Your task to perform on an android device: manage bookmarks in the chrome app Image 0: 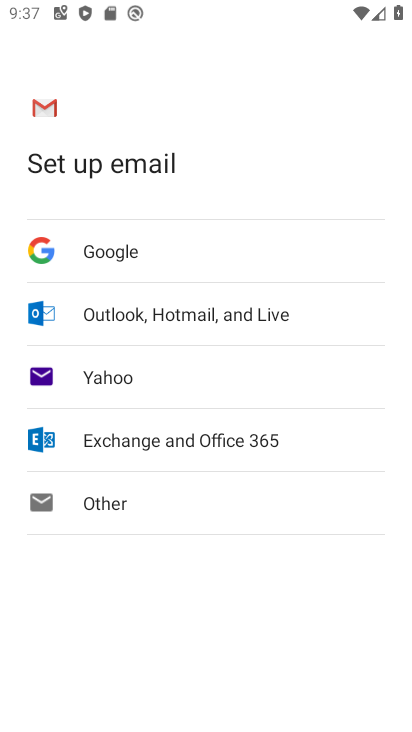
Step 0: press home button
Your task to perform on an android device: manage bookmarks in the chrome app Image 1: 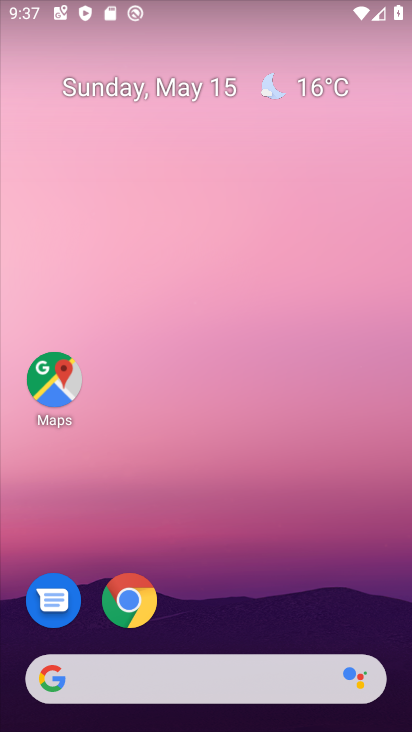
Step 1: click (139, 607)
Your task to perform on an android device: manage bookmarks in the chrome app Image 2: 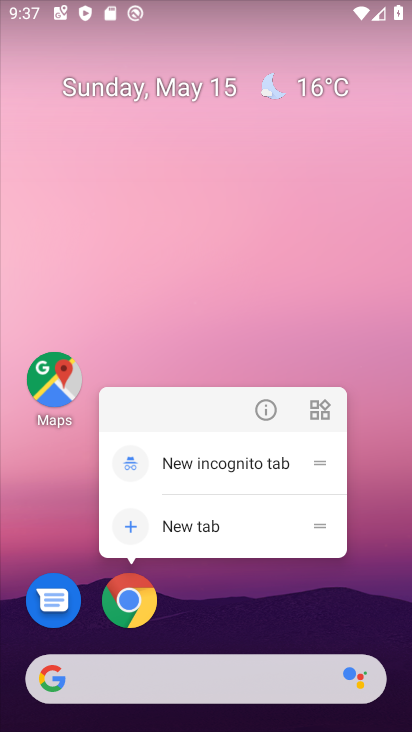
Step 2: click (132, 597)
Your task to perform on an android device: manage bookmarks in the chrome app Image 3: 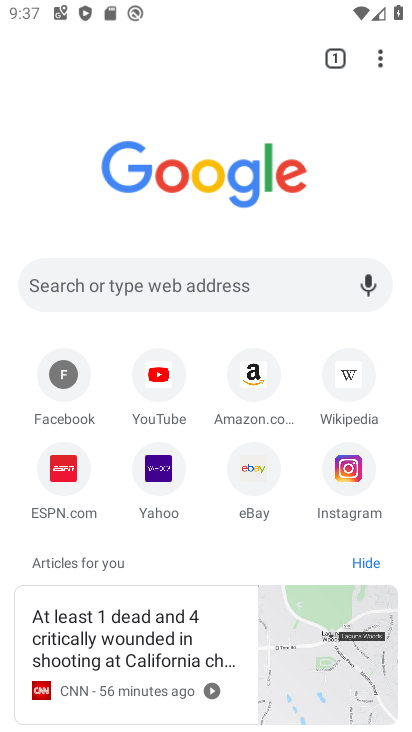
Step 3: click (384, 56)
Your task to perform on an android device: manage bookmarks in the chrome app Image 4: 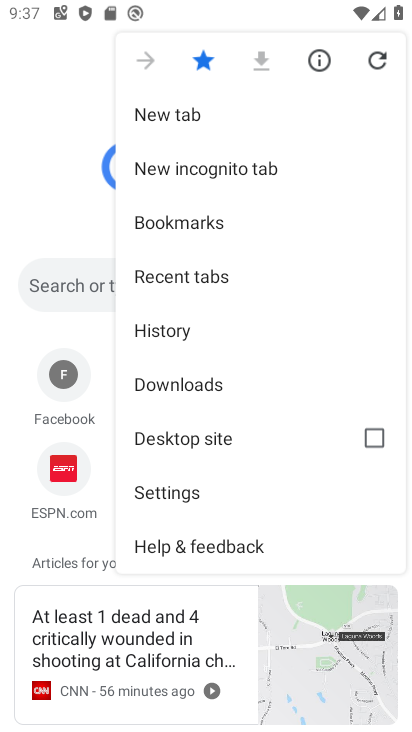
Step 4: click (153, 490)
Your task to perform on an android device: manage bookmarks in the chrome app Image 5: 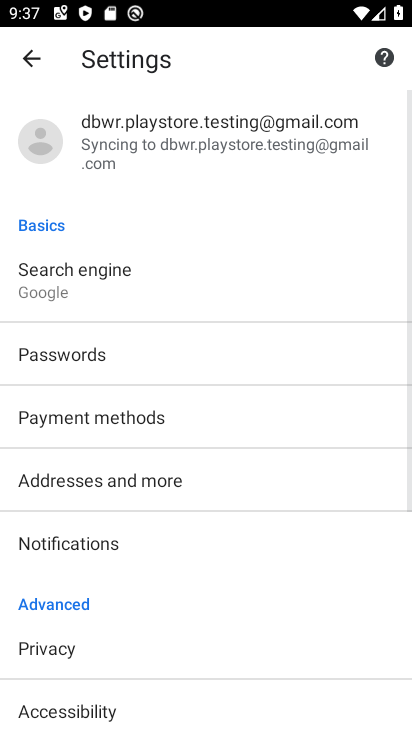
Step 5: drag from (211, 600) to (166, 321)
Your task to perform on an android device: manage bookmarks in the chrome app Image 6: 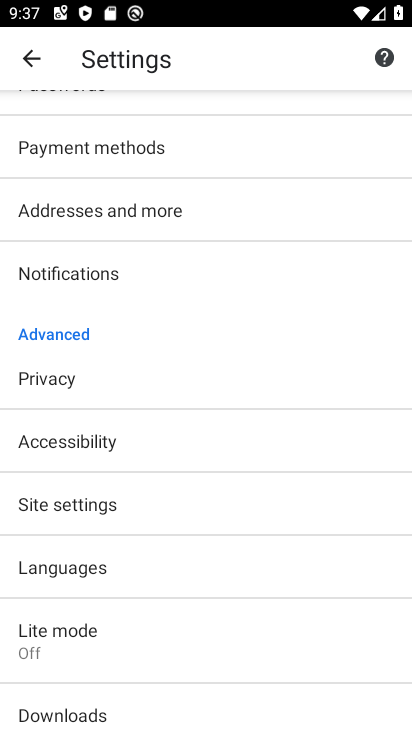
Step 6: drag from (112, 665) to (116, 140)
Your task to perform on an android device: manage bookmarks in the chrome app Image 7: 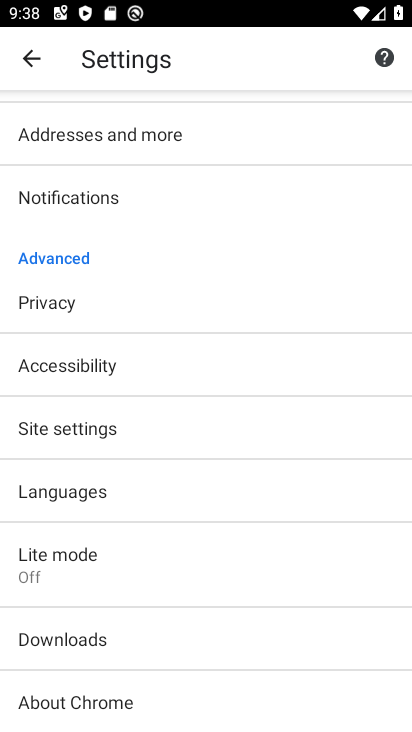
Step 7: drag from (154, 272) to (187, 685)
Your task to perform on an android device: manage bookmarks in the chrome app Image 8: 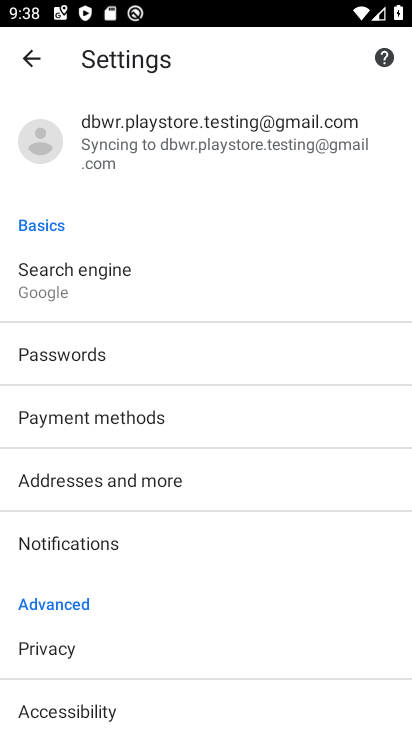
Step 8: click (33, 56)
Your task to perform on an android device: manage bookmarks in the chrome app Image 9: 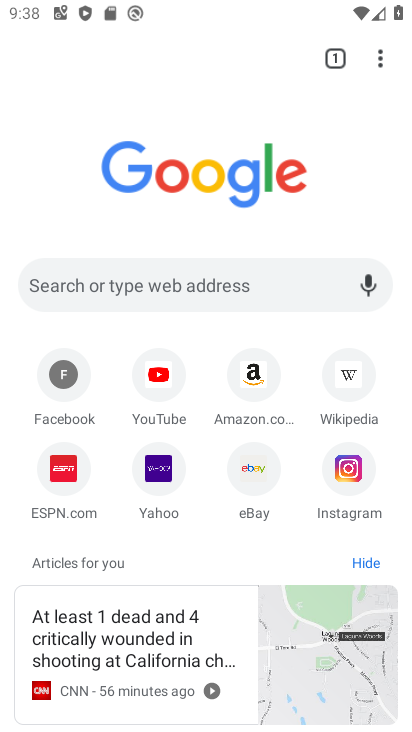
Step 9: click (394, 63)
Your task to perform on an android device: manage bookmarks in the chrome app Image 10: 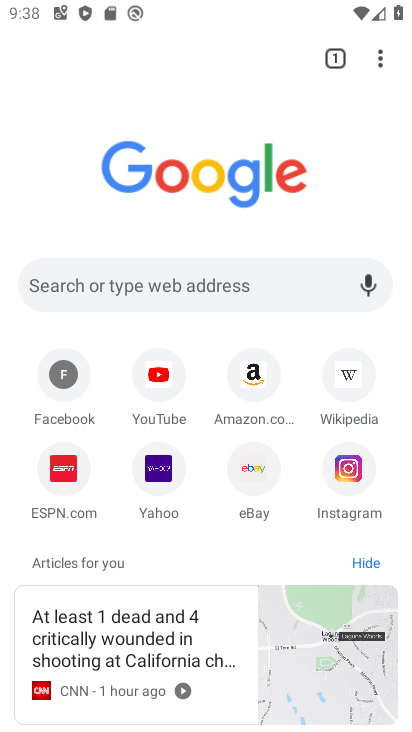
Step 10: drag from (380, 54) to (194, 211)
Your task to perform on an android device: manage bookmarks in the chrome app Image 11: 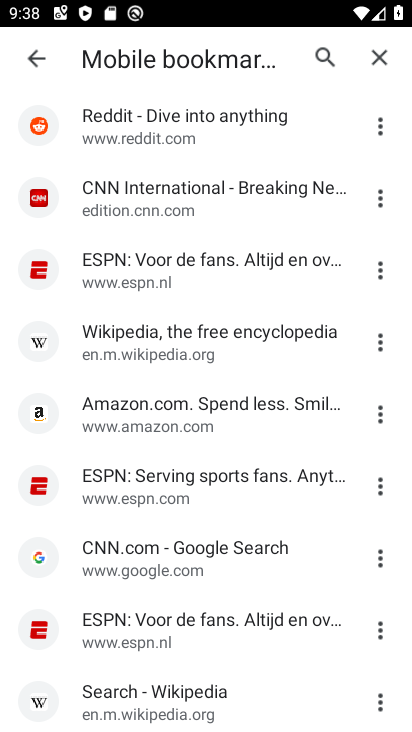
Step 11: click (381, 128)
Your task to perform on an android device: manage bookmarks in the chrome app Image 12: 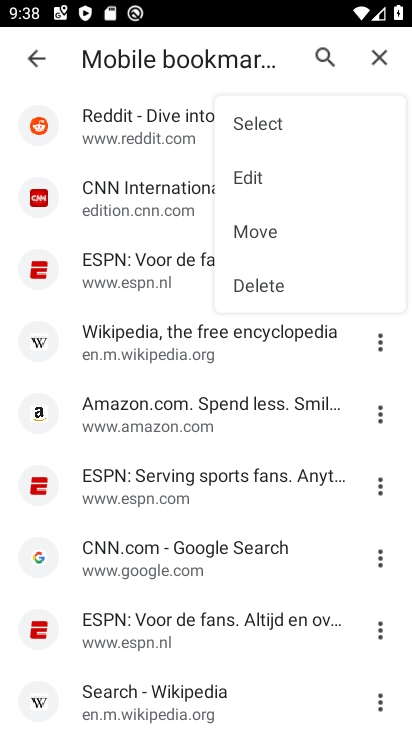
Step 12: click (252, 157)
Your task to perform on an android device: manage bookmarks in the chrome app Image 13: 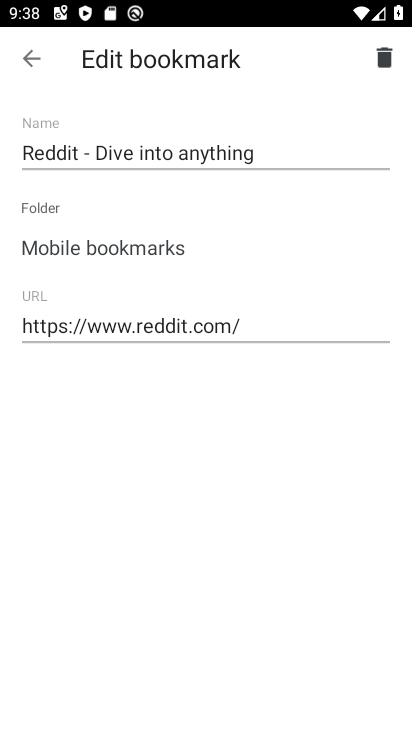
Step 13: task complete